Your task to perform on an android device: add a contact Image 0: 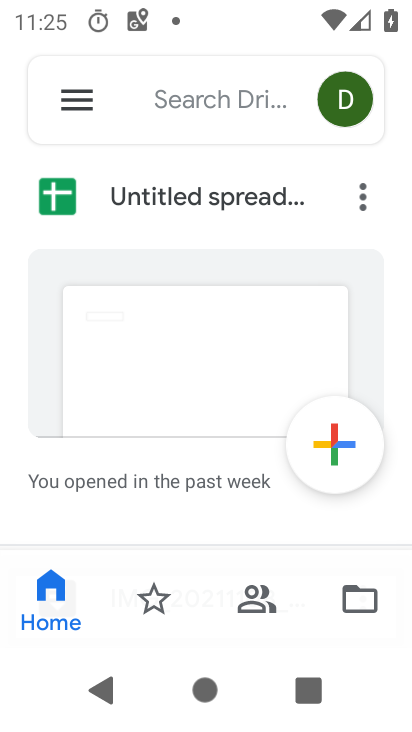
Step 0: press home button
Your task to perform on an android device: add a contact Image 1: 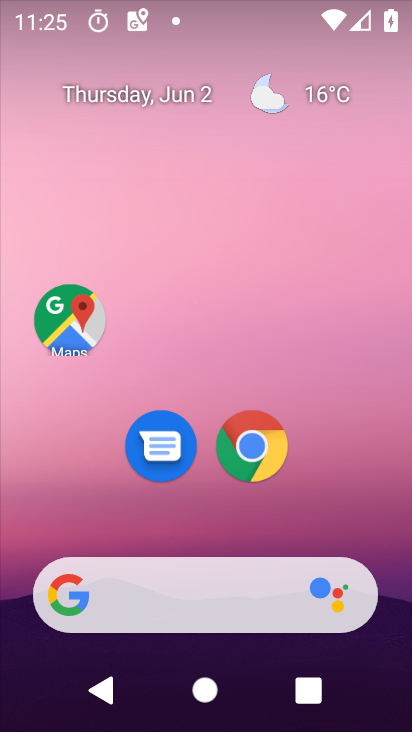
Step 1: drag from (383, 530) to (374, 185)
Your task to perform on an android device: add a contact Image 2: 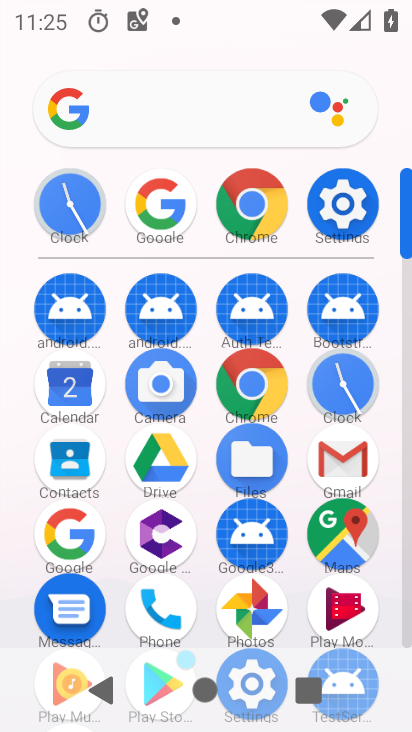
Step 2: click (82, 471)
Your task to perform on an android device: add a contact Image 3: 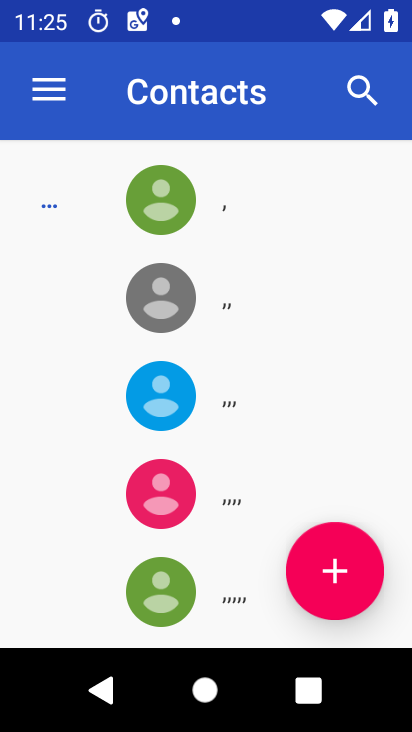
Step 3: click (315, 558)
Your task to perform on an android device: add a contact Image 4: 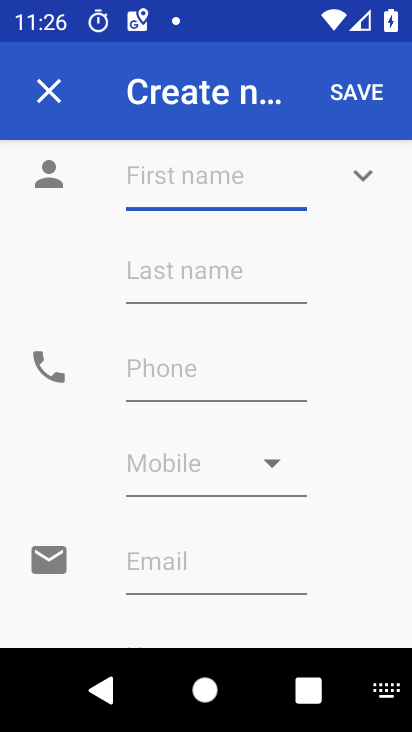
Step 4: type "meto"
Your task to perform on an android device: add a contact Image 5: 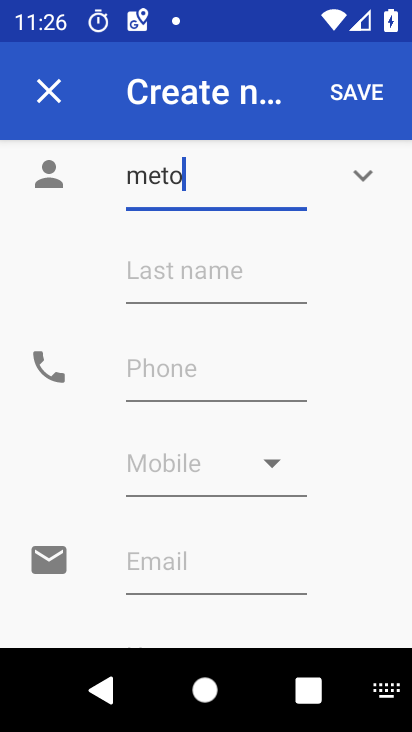
Step 5: click (237, 382)
Your task to perform on an android device: add a contact Image 6: 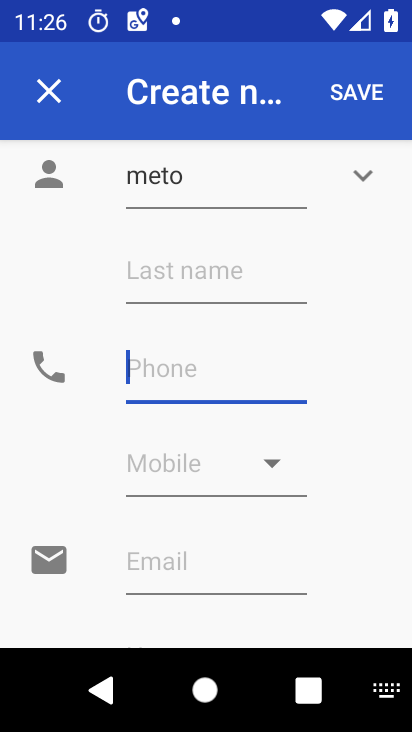
Step 6: type "123456789"
Your task to perform on an android device: add a contact Image 7: 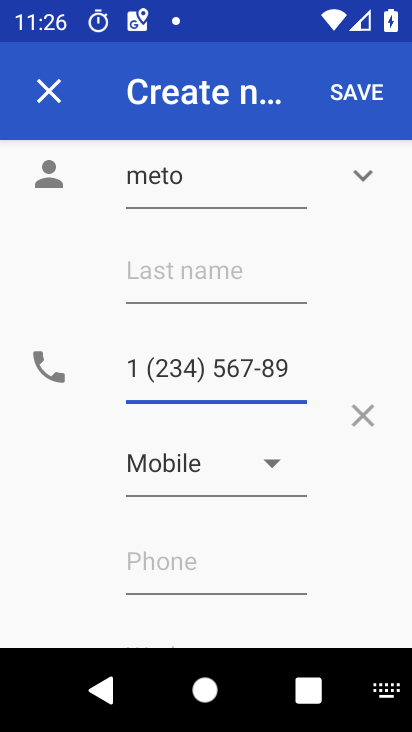
Step 7: click (379, 104)
Your task to perform on an android device: add a contact Image 8: 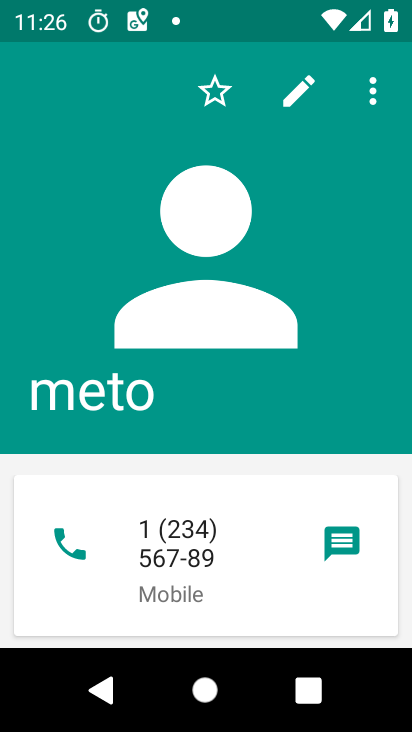
Step 8: task complete